Your task to perform on an android device: Open eBay Image 0: 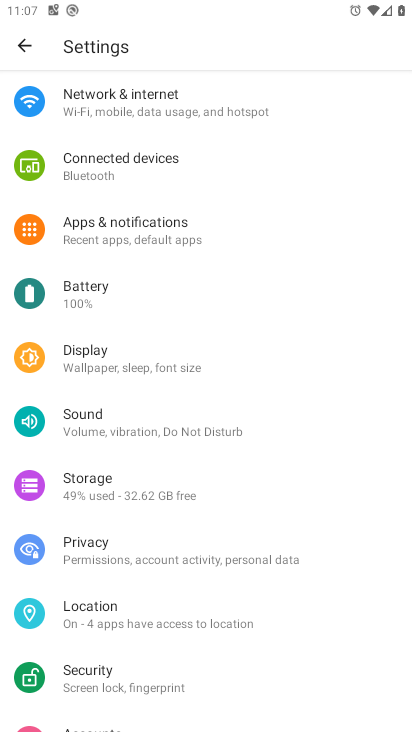
Step 0: press home button
Your task to perform on an android device: Open eBay Image 1: 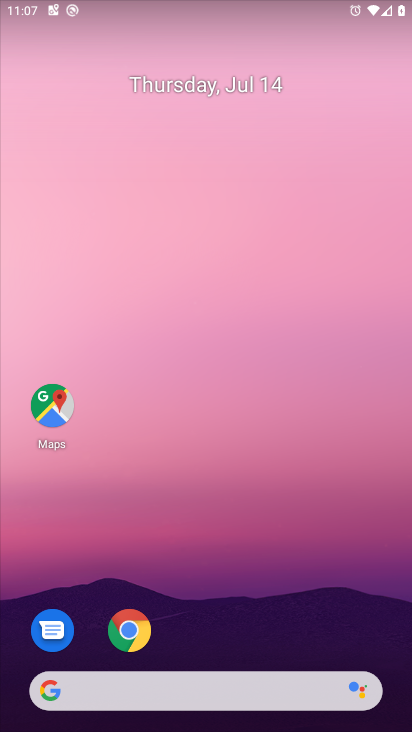
Step 1: click (88, 689)
Your task to perform on an android device: Open eBay Image 2: 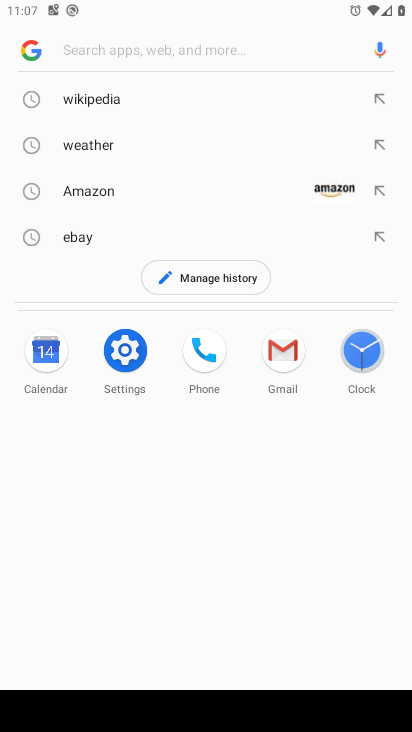
Step 2: click (92, 235)
Your task to perform on an android device: Open eBay Image 3: 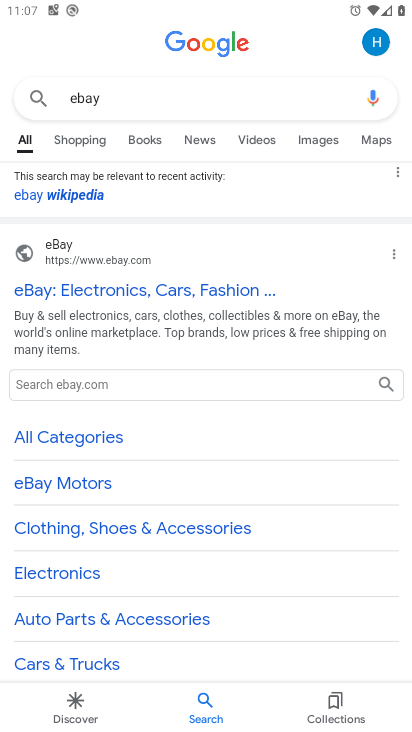
Step 3: task complete